Your task to perform on an android device: Open eBay Image 0: 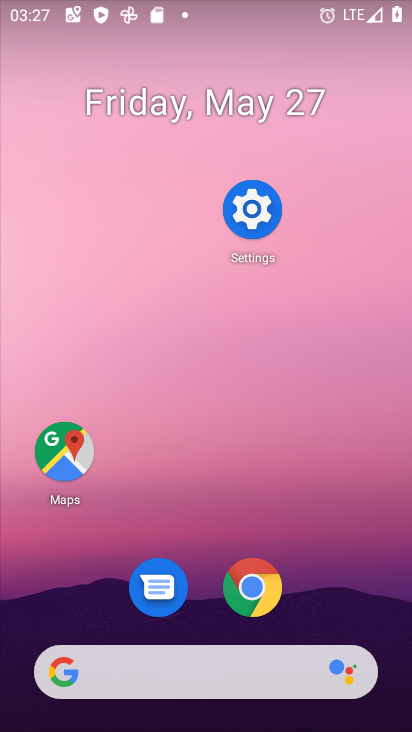
Step 0: click (215, 684)
Your task to perform on an android device: Open eBay Image 1: 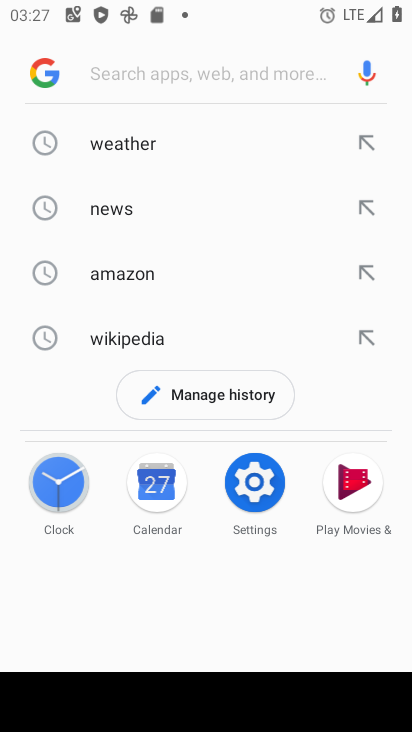
Step 1: type "eBay"
Your task to perform on an android device: Open eBay Image 2: 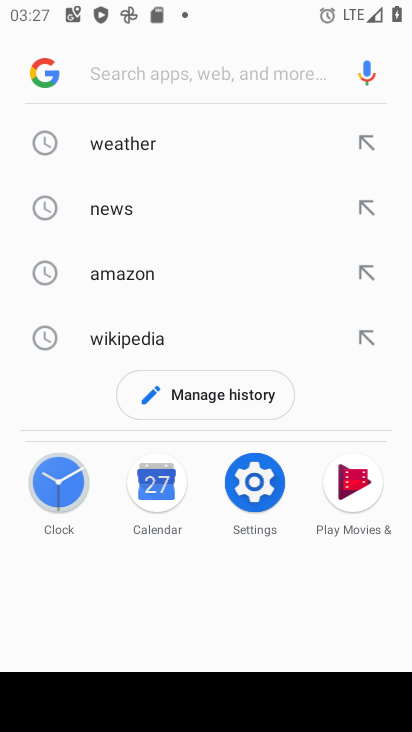
Step 2: click (177, 71)
Your task to perform on an android device: Open eBay Image 3: 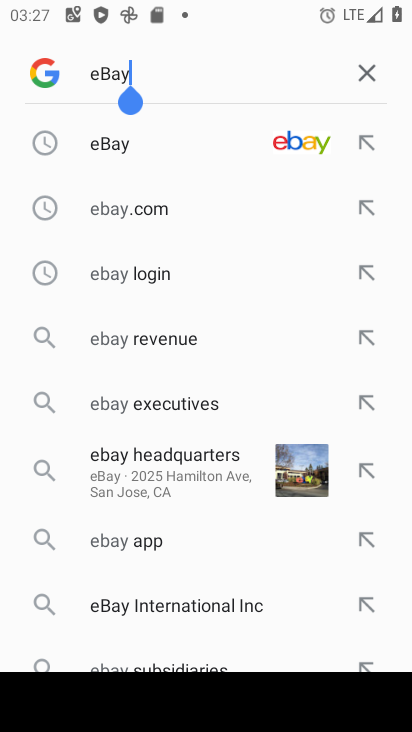
Step 3: click (115, 143)
Your task to perform on an android device: Open eBay Image 4: 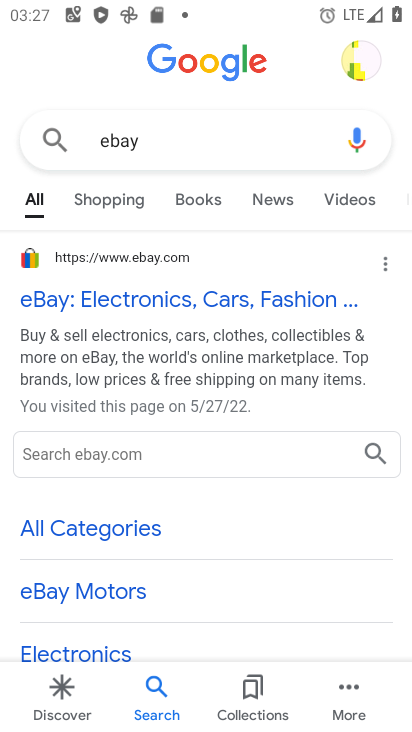
Step 4: click (136, 299)
Your task to perform on an android device: Open eBay Image 5: 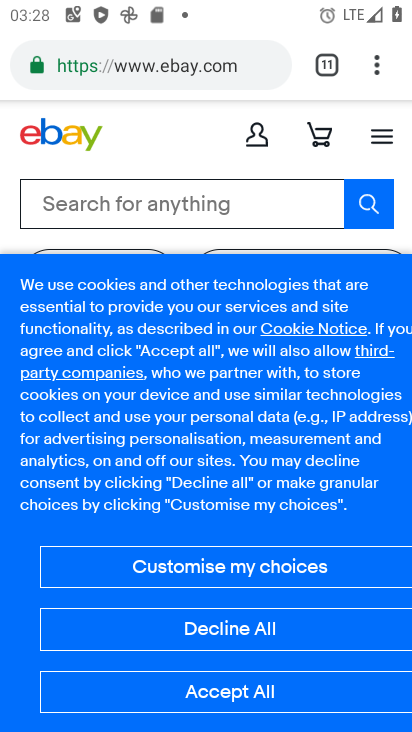
Step 5: task complete